Your task to perform on an android device: Show me recent news Image 0: 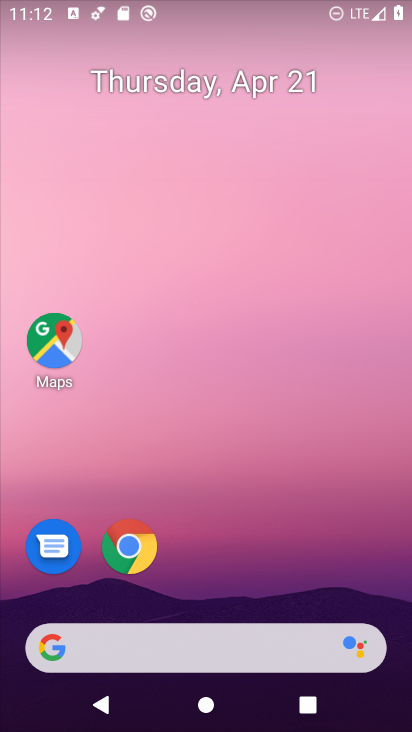
Step 0: drag from (9, 220) to (401, 278)
Your task to perform on an android device: Show me recent news Image 1: 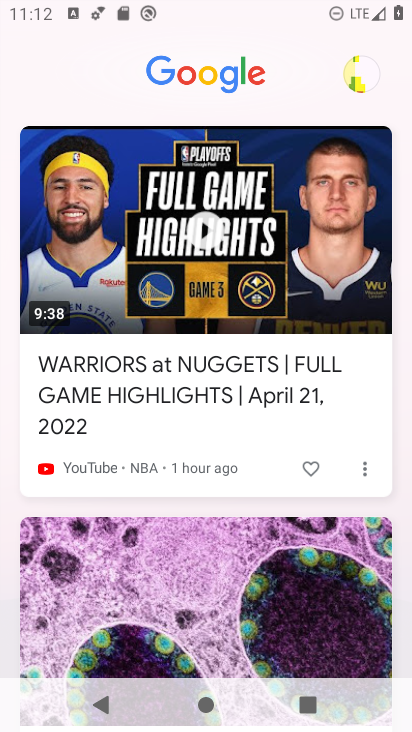
Step 1: task complete